Your task to perform on an android device: Open ESPN.com Image 0: 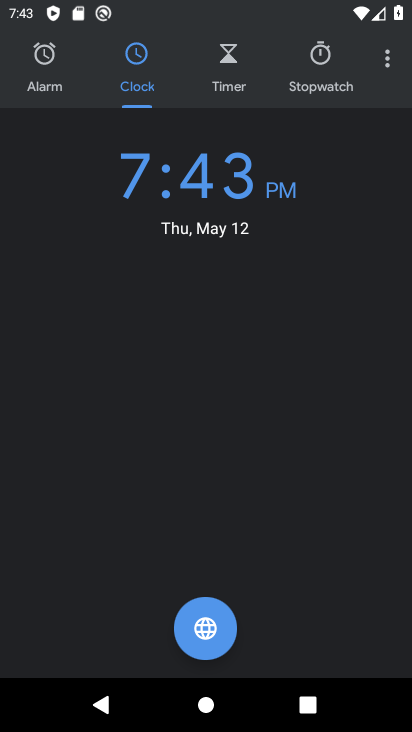
Step 0: press home button
Your task to perform on an android device: Open ESPN.com Image 1: 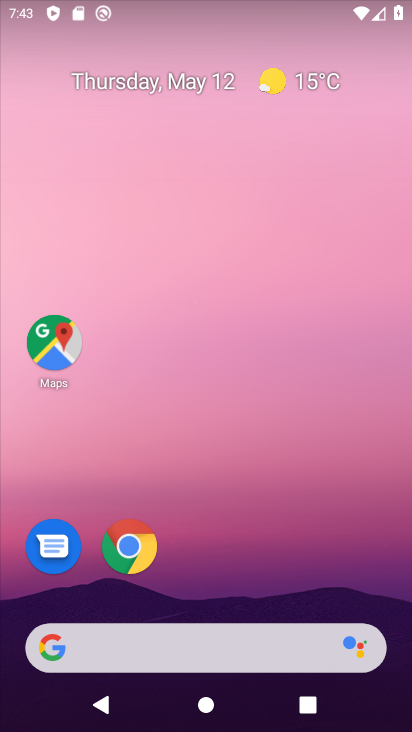
Step 1: drag from (164, 652) to (319, 108)
Your task to perform on an android device: Open ESPN.com Image 2: 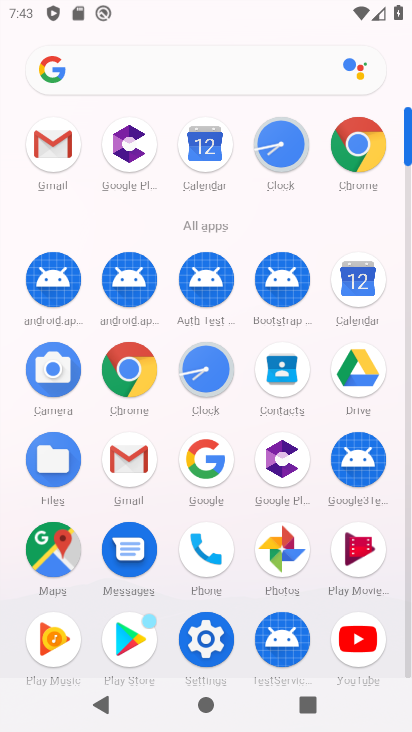
Step 2: click (354, 150)
Your task to perform on an android device: Open ESPN.com Image 3: 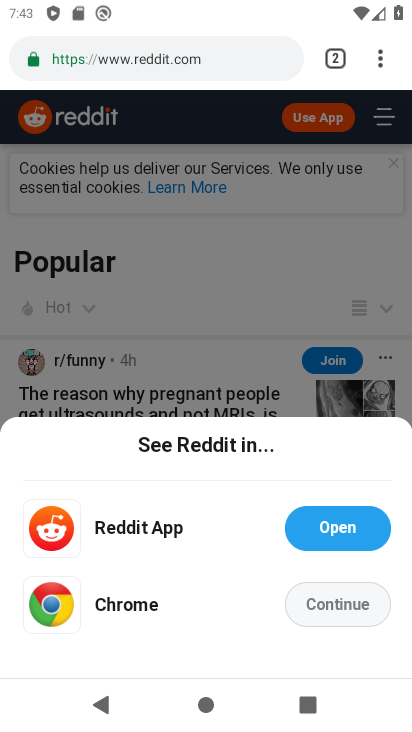
Step 3: click (379, 65)
Your task to perform on an android device: Open ESPN.com Image 4: 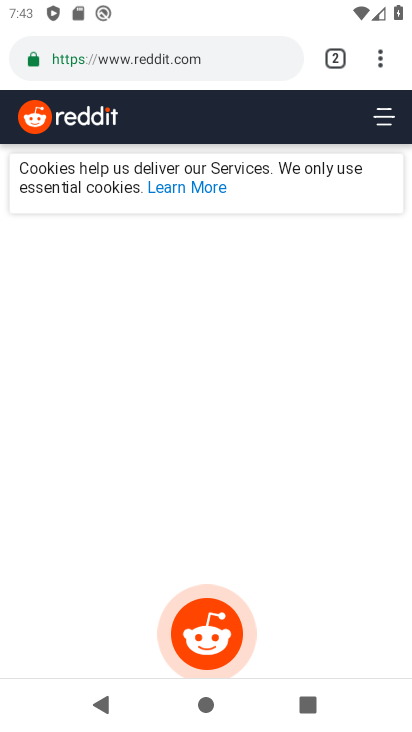
Step 4: drag from (378, 65) to (212, 112)
Your task to perform on an android device: Open ESPN.com Image 5: 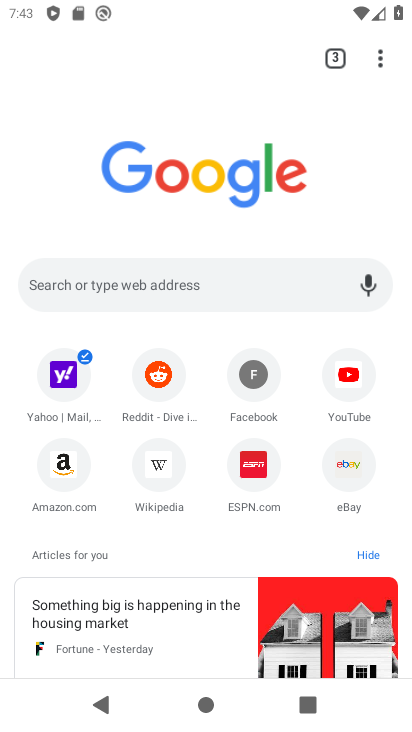
Step 5: click (255, 469)
Your task to perform on an android device: Open ESPN.com Image 6: 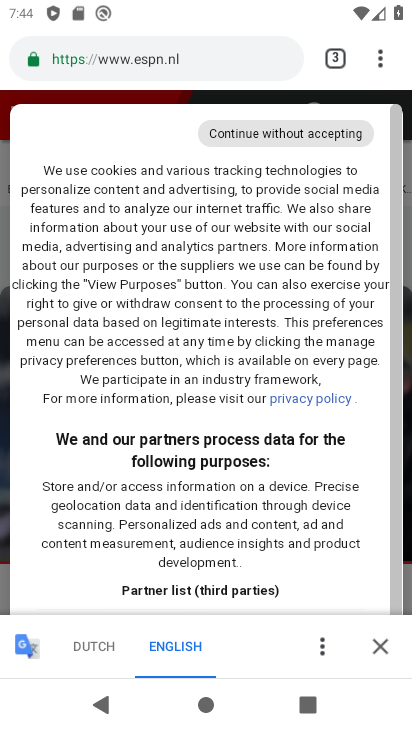
Step 6: task complete